Your task to perform on an android device: Add "acer nitro" to the cart on bestbuy, then select checkout. Image 0: 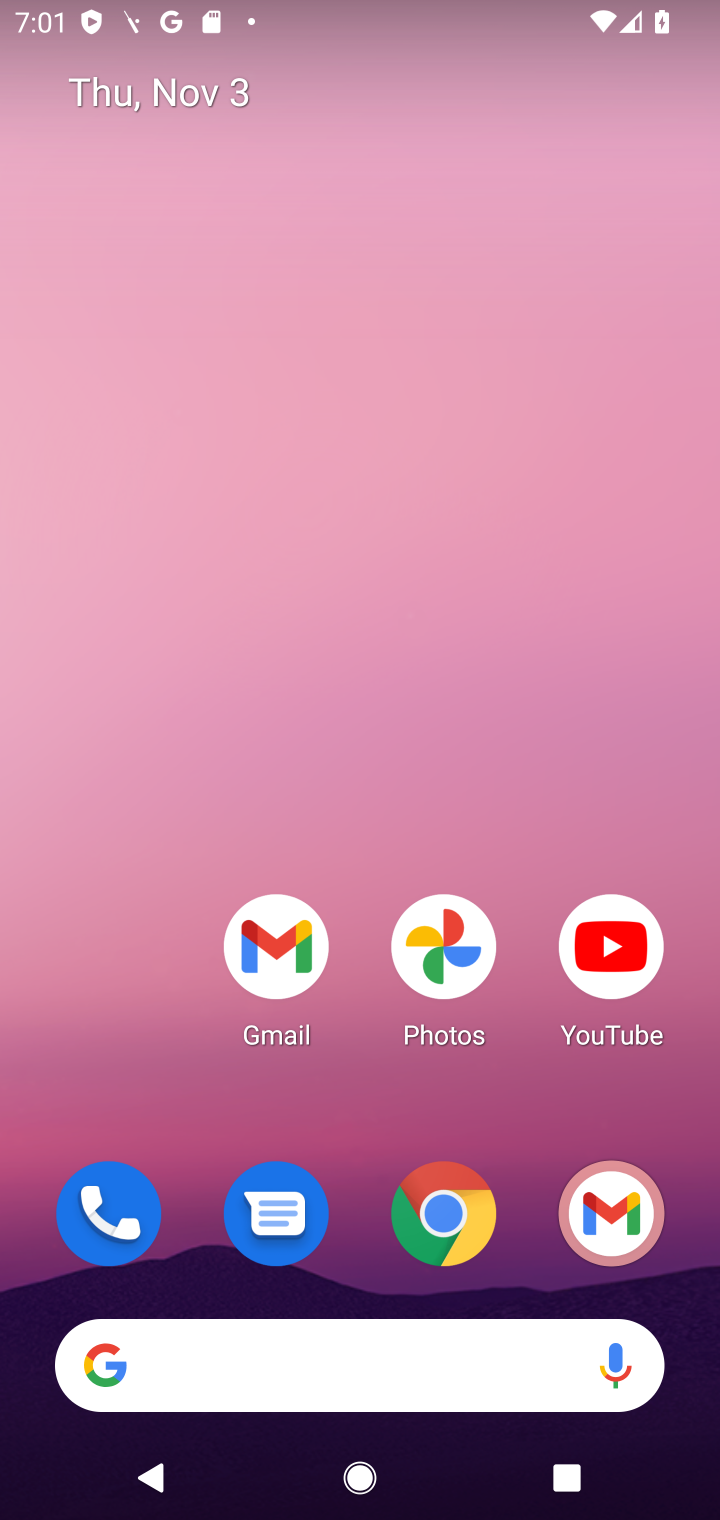
Step 0: click (441, 1226)
Your task to perform on an android device: Add "acer nitro" to the cart on bestbuy, then select checkout. Image 1: 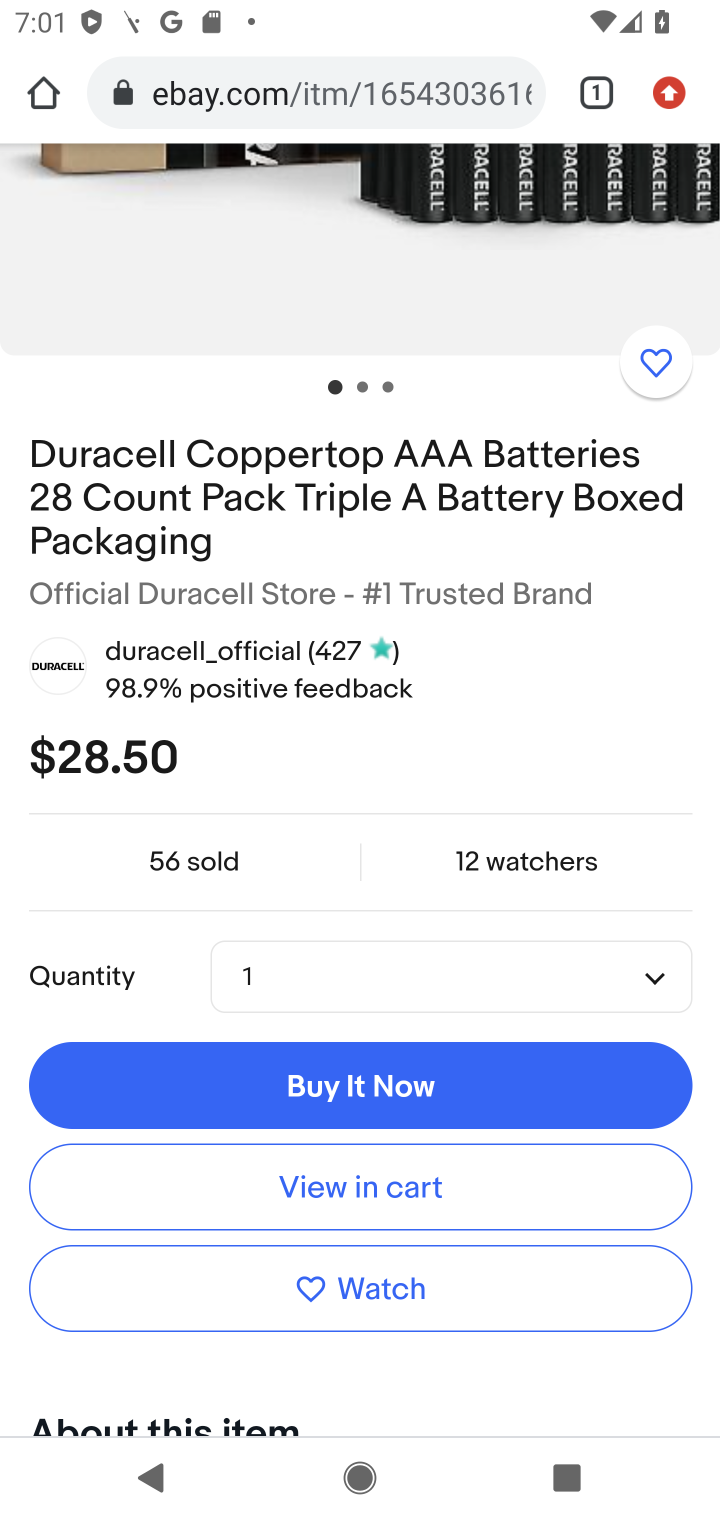
Step 1: click (300, 93)
Your task to perform on an android device: Add "acer nitro" to the cart on bestbuy, then select checkout. Image 2: 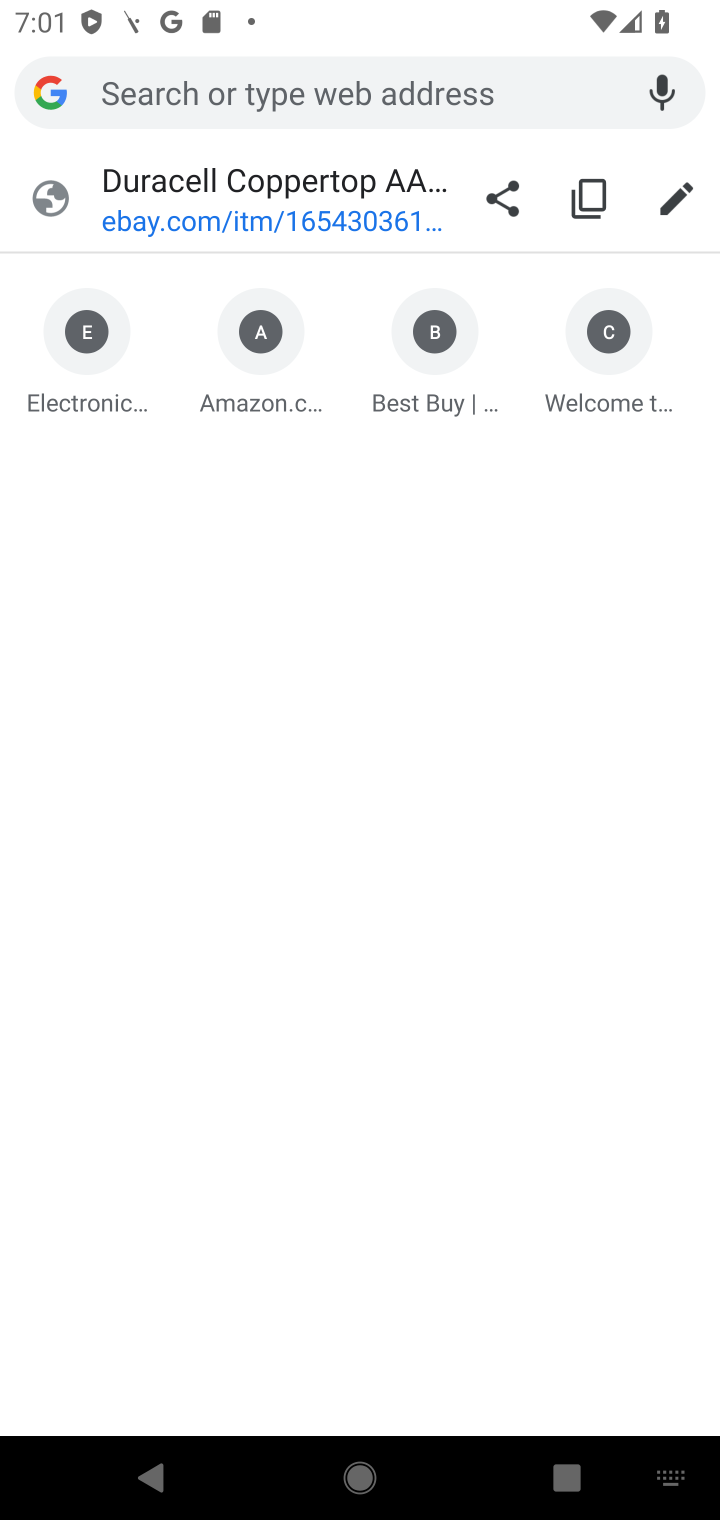
Step 2: type "bestbuy.com"
Your task to perform on an android device: Add "acer nitro" to the cart on bestbuy, then select checkout. Image 3: 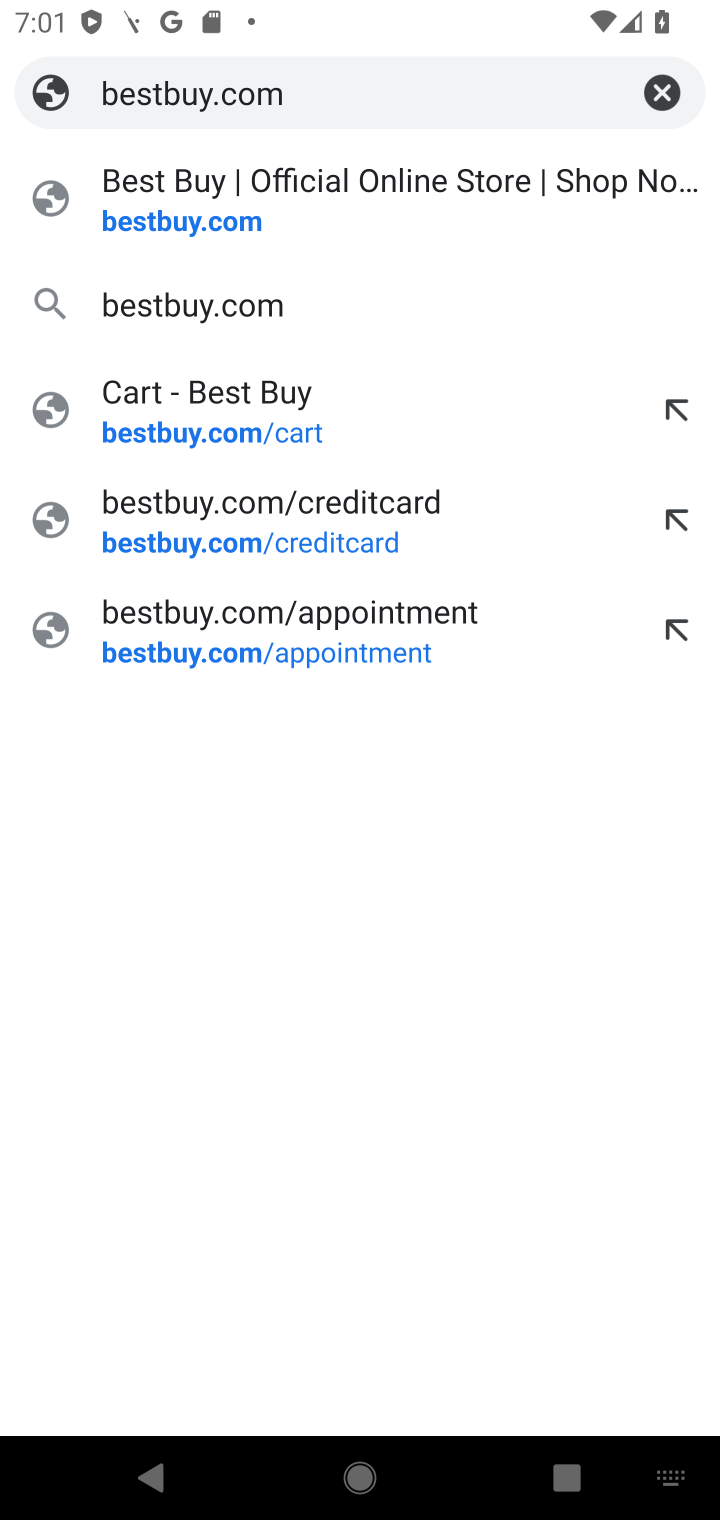
Step 3: click (159, 230)
Your task to perform on an android device: Add "acer nitro" to the cart on bestbuy, then select checkout. Image 4: 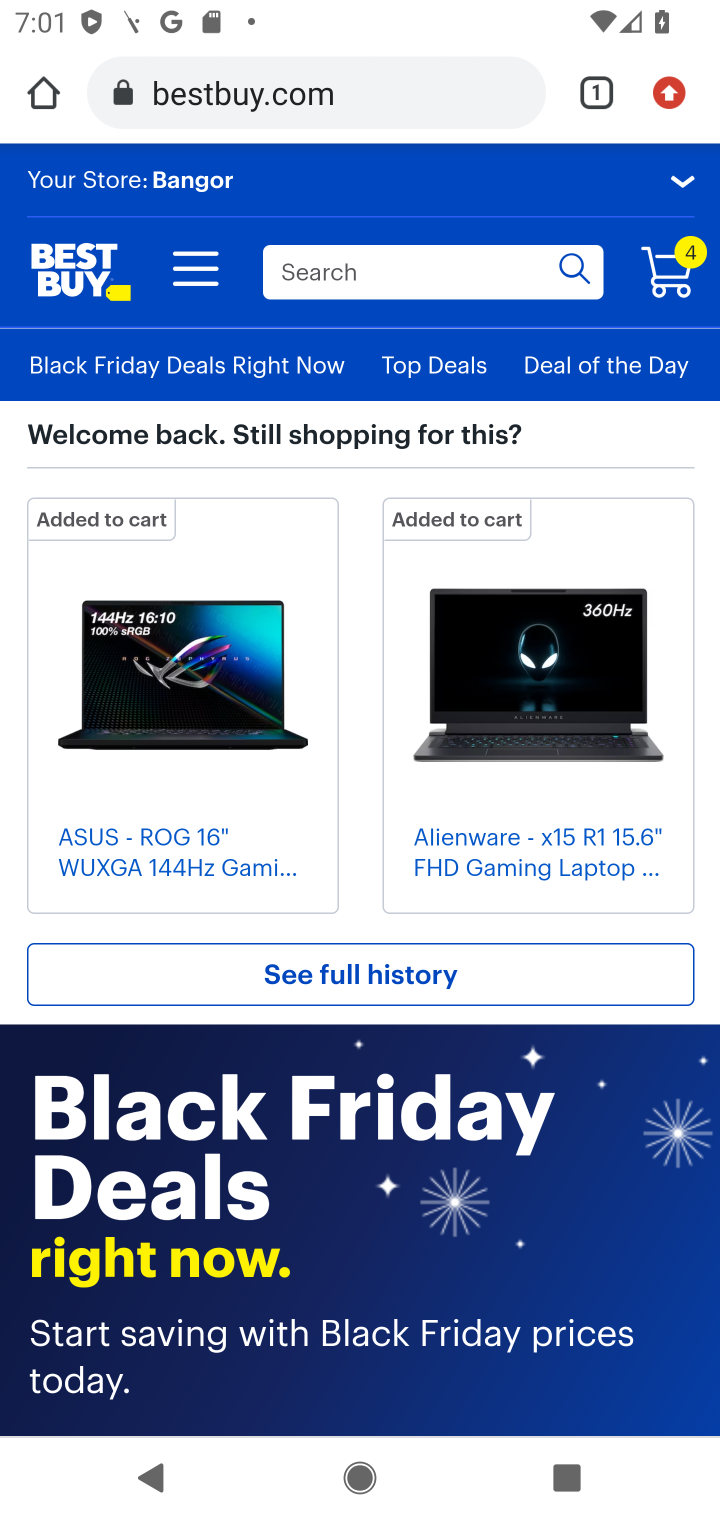
Step 4: click (356, 279)
Your task to perform on an android device: Add "acer nitro" to the cart on bestbuy, then select checkout. Image 5: 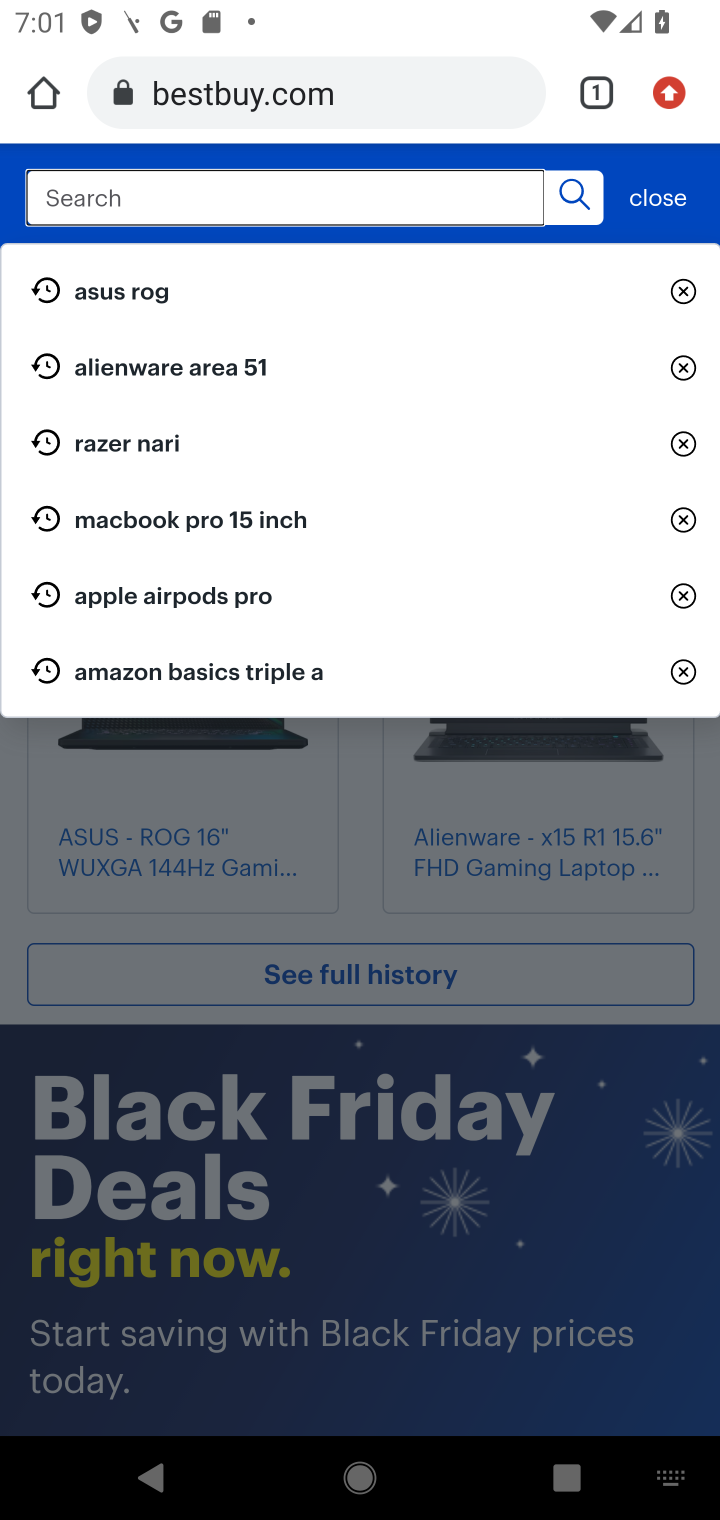
Step 5: type "acer nitro"
Your task to perform on an android device: Add "acer nitro" to the cart on bestbuy, then select checkout. Image 6: 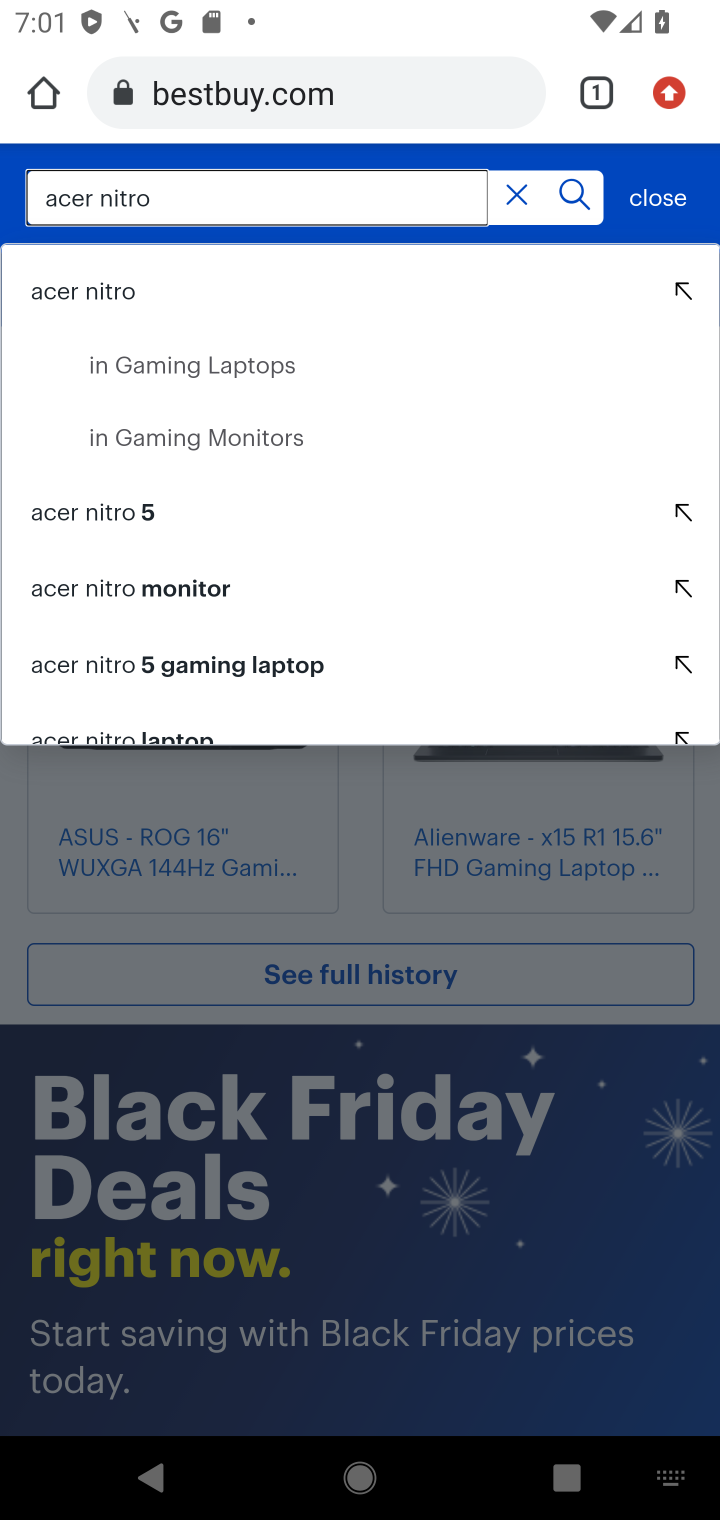
Step 6: click (57, 294)
Your task to perform on an android device: Add "acer nitro" to the cart on bestbuy, then select checkout. Image 7: 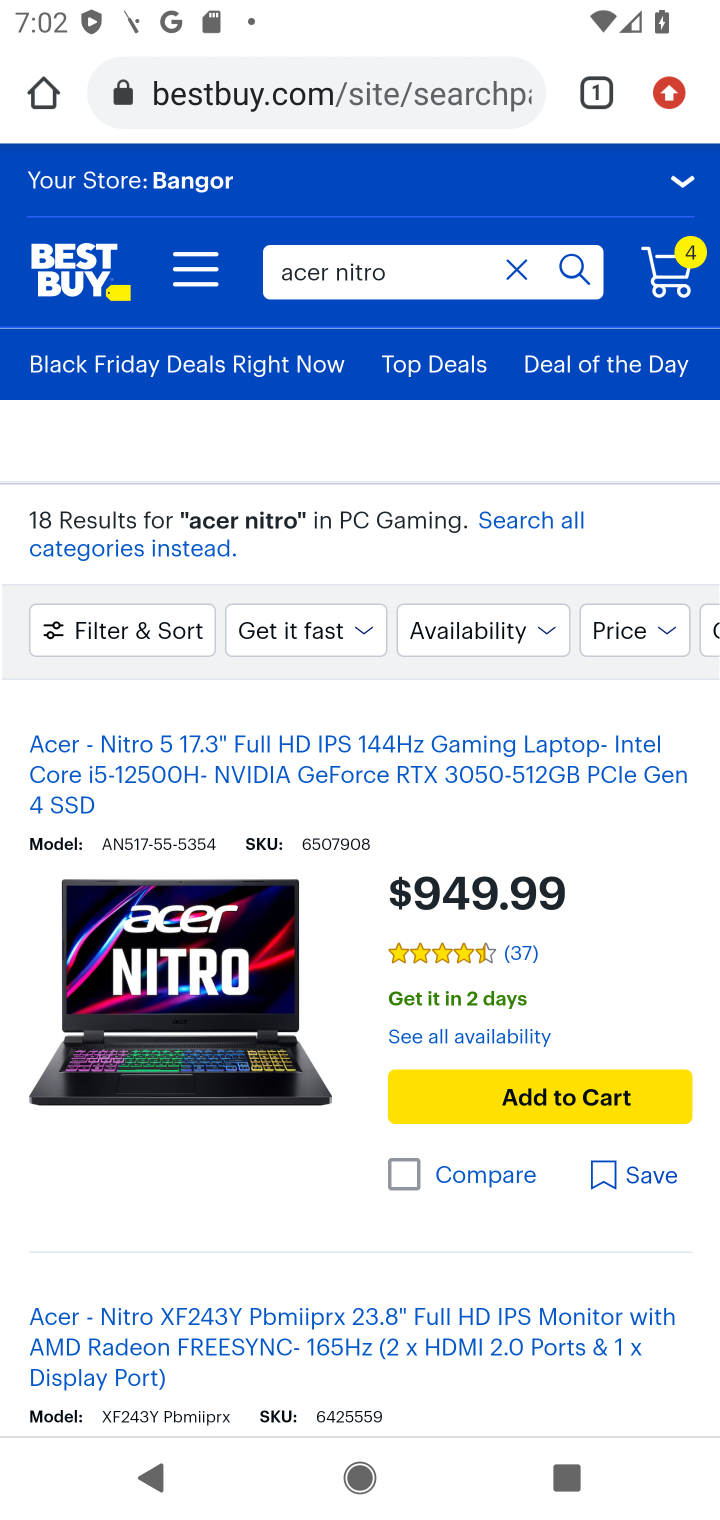
Step 7: click (229, 805)
Your task to perform on an android device: Add "acer nitro" to the cart on bestbuy, then select checkout. Image 8: 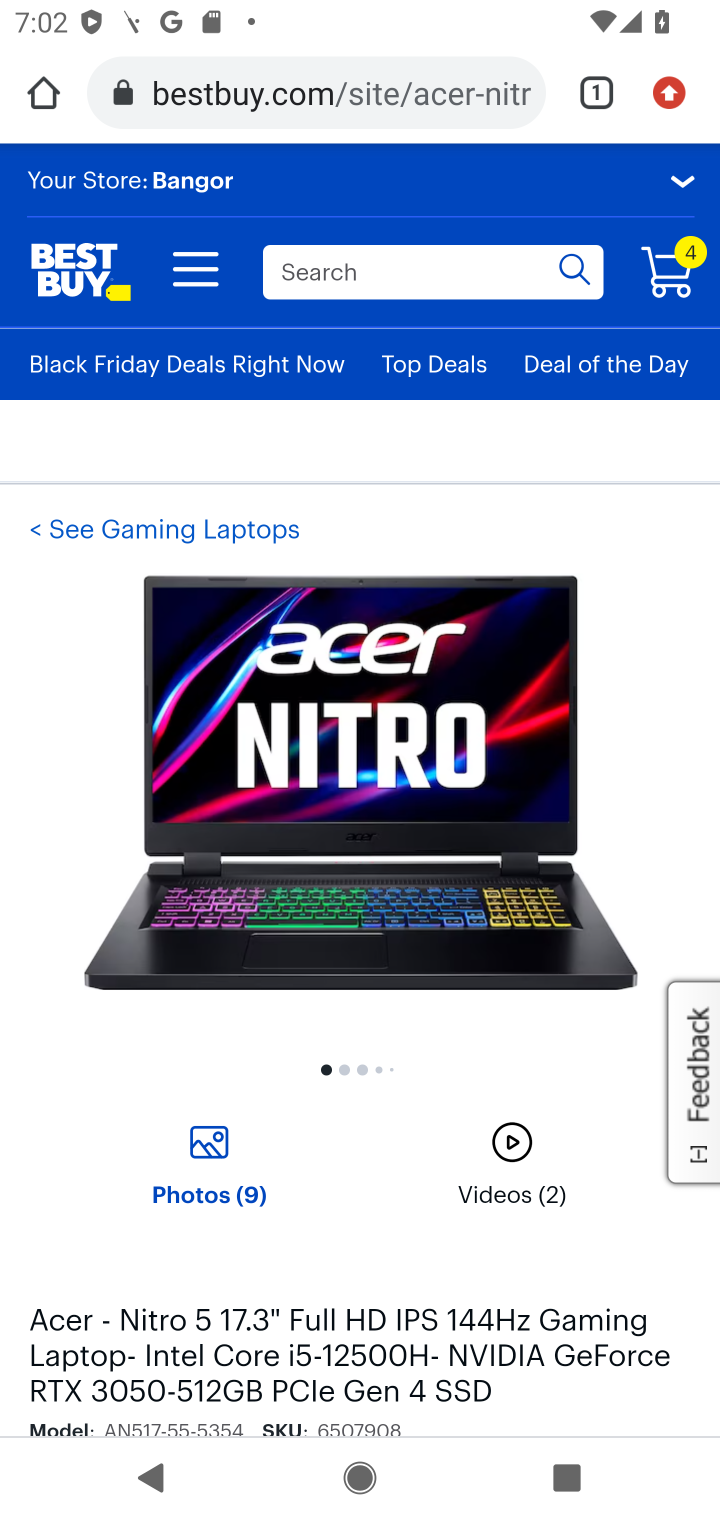
Step 8: drag from (269, 902) to (265, 466)
Your task to perform on an android device: Add "acer nitro" to the cart on bestbuy, then select checkout. Image 9: 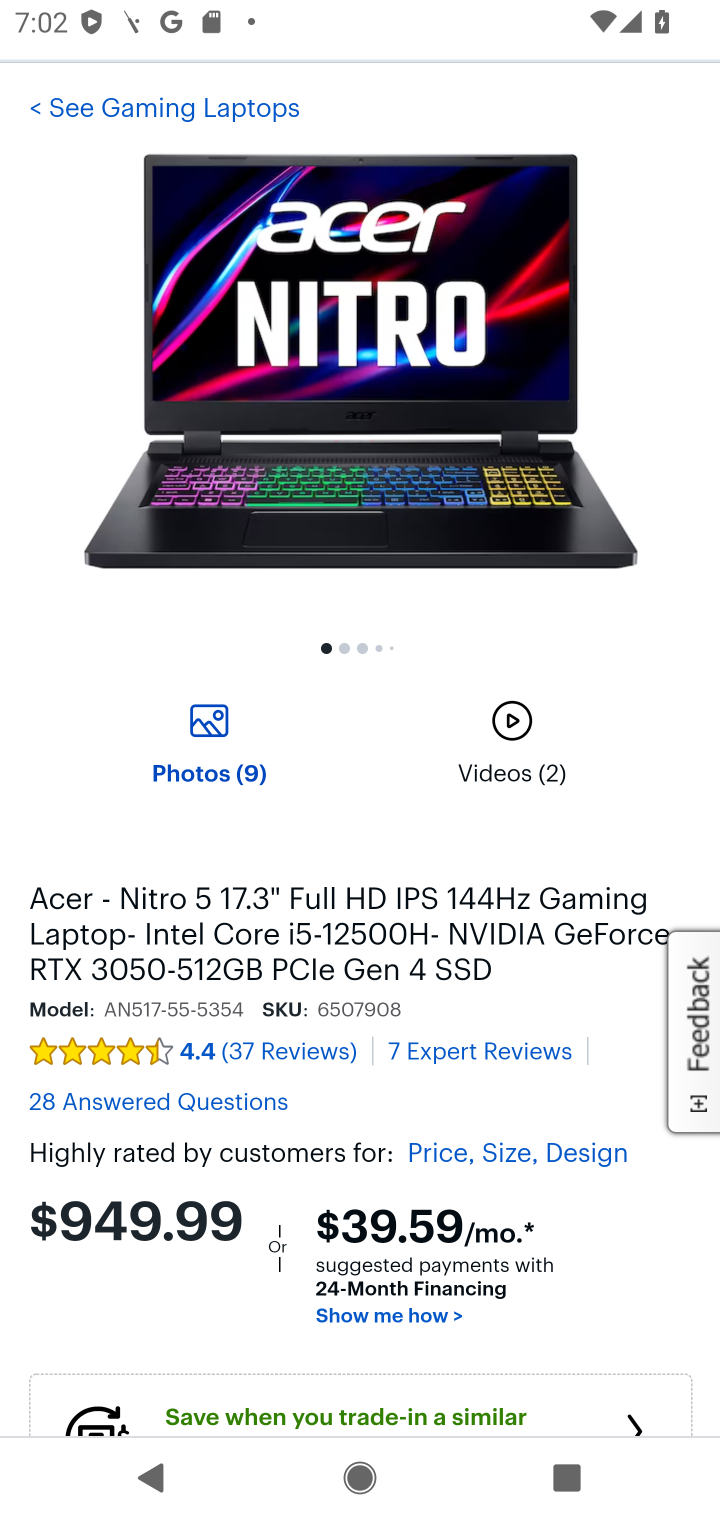
Step 9: drag from (292, 1021) to (287, 486)
Your task to perform on an android device: Add "acer nitro" to the cart on bestbuy, then select checkout. Image 10: 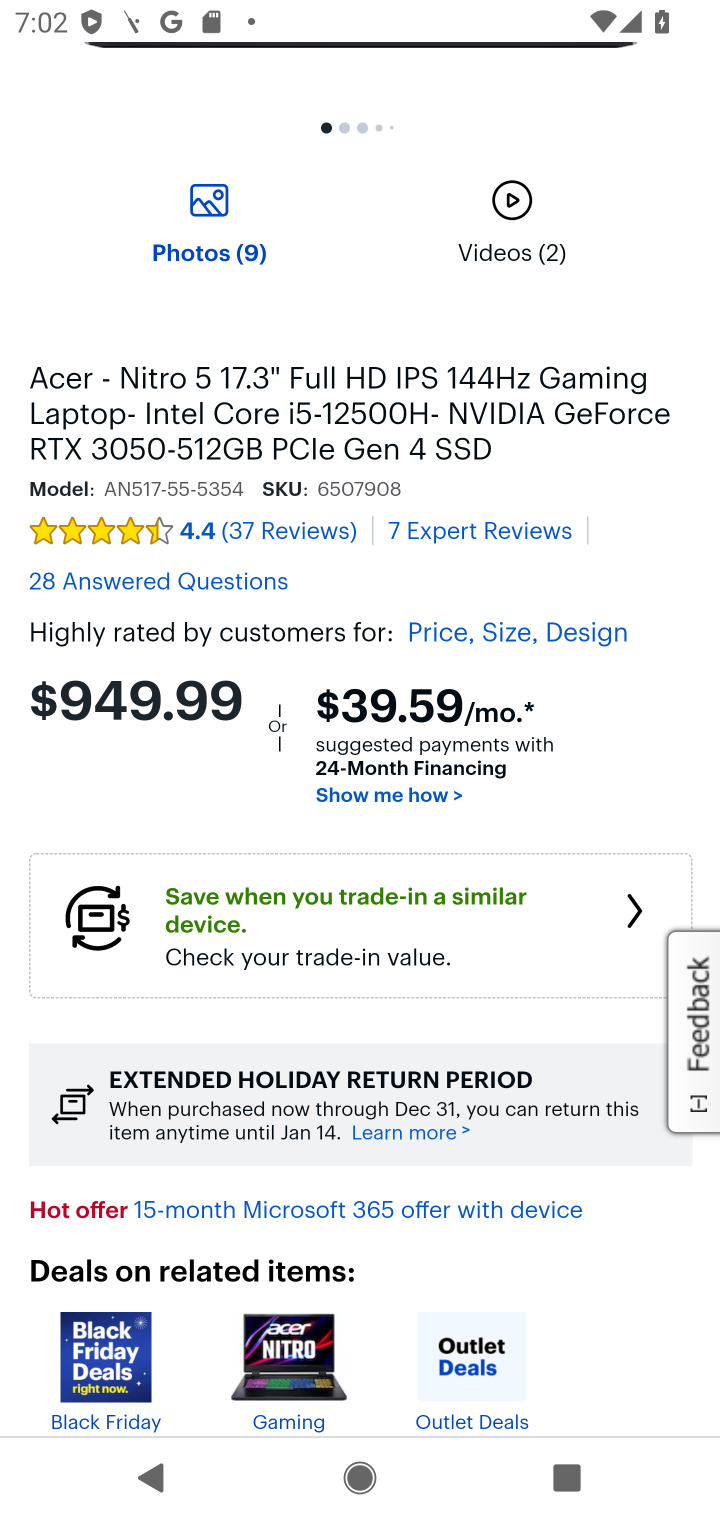
Step 10: drag from (287, 1041) to (307, 512)
Your task to perform on an android device: Add "acer nitro" to the cart on bestbuy, then select checkout. Image 11: 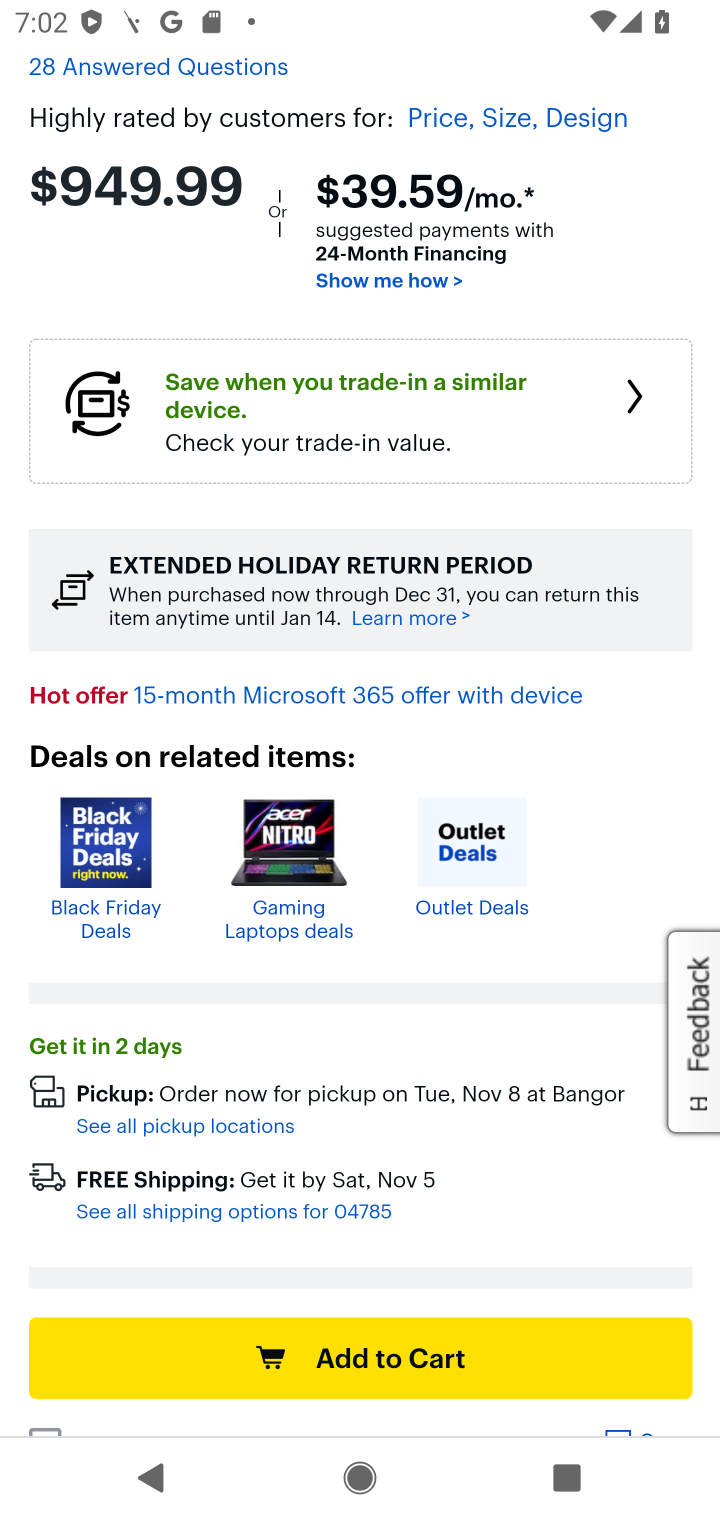
Step 11: click (328, 1366)
Your task to perform on an android device: Add "acer nitro" to the cart on bestbuy, then select checkout. Image 12: 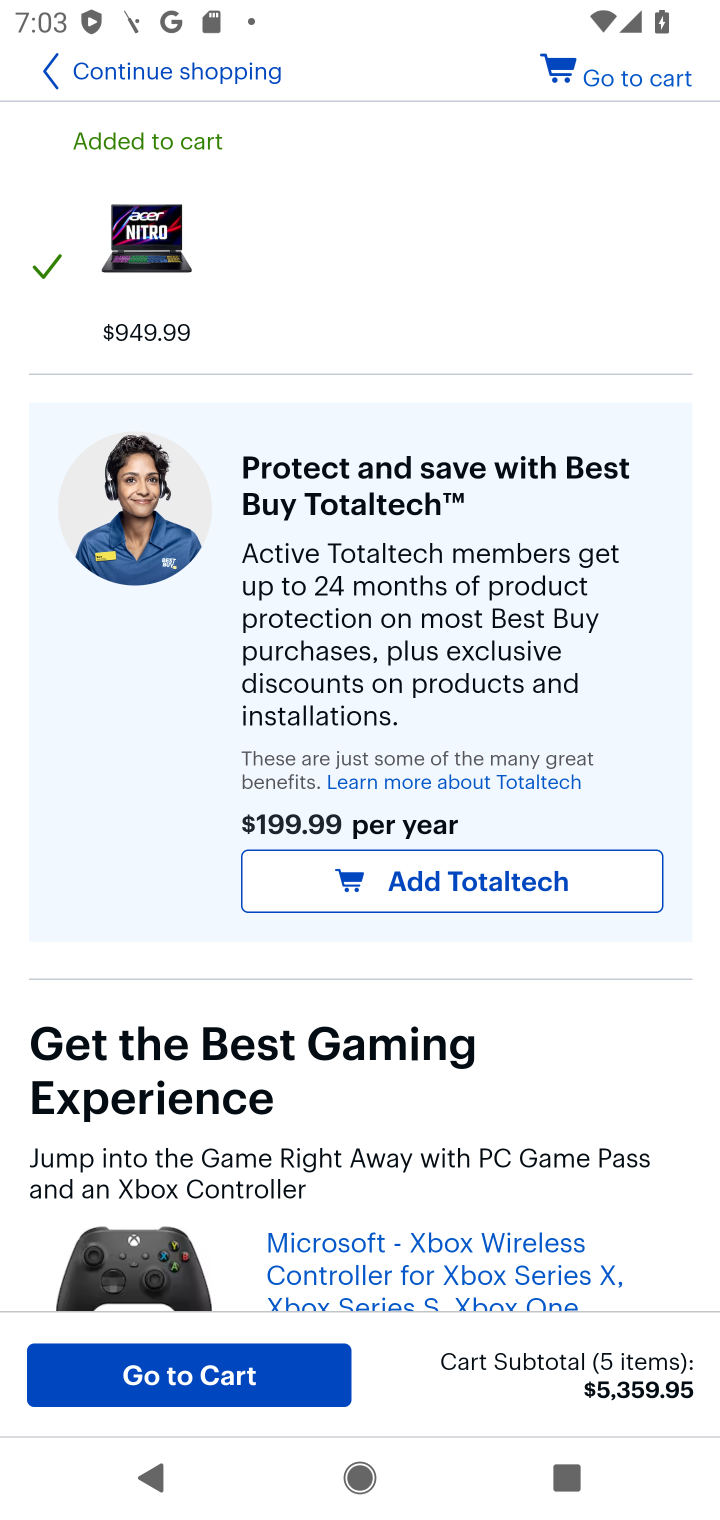
Step 12: click (645, 75)
Your task to perform on an android device: Add "acer nitro" to the cart on bestbuy, then select checkout. Image 13: 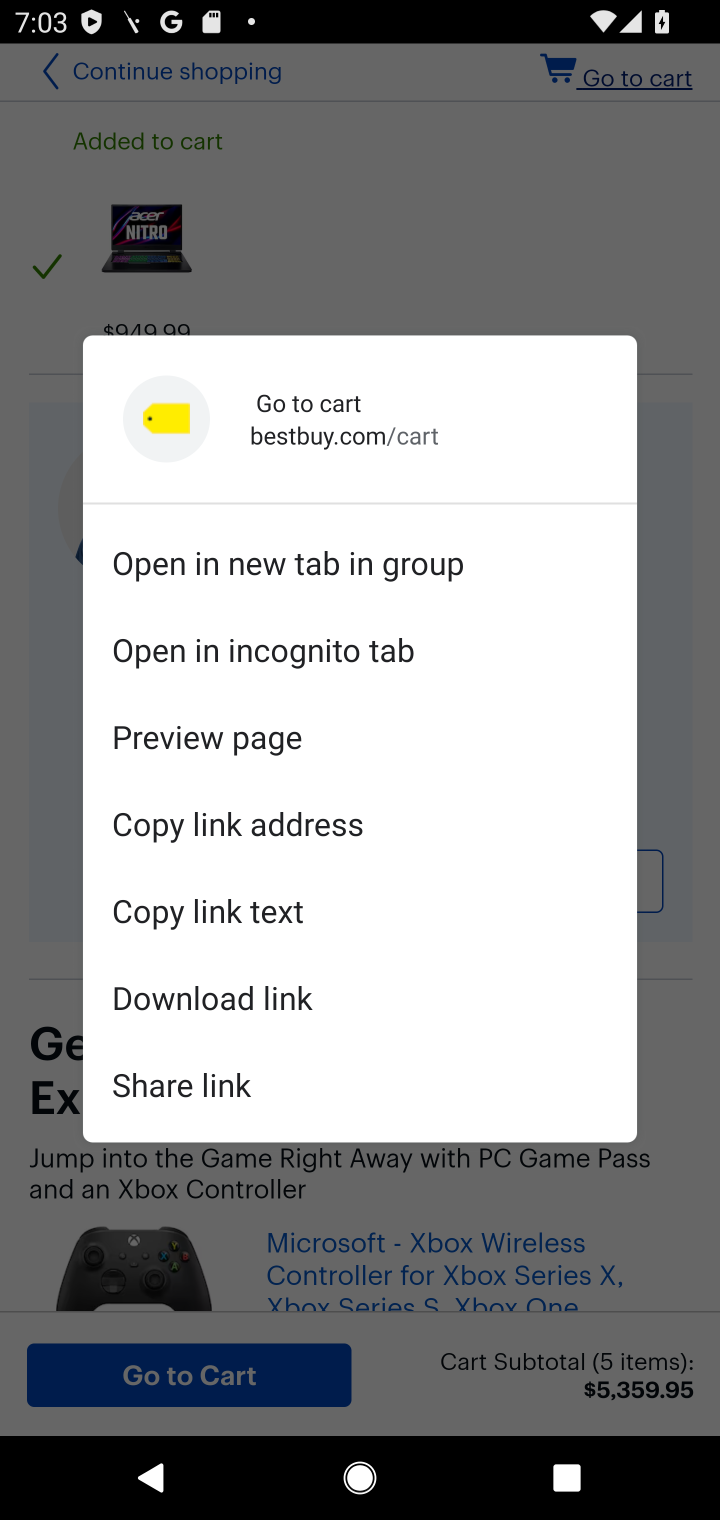
Step 13: click (608, 83)
Your task to perform on an android device: Add "acer nitro" to the cart on bestbuy, then select checkout. Image 14: 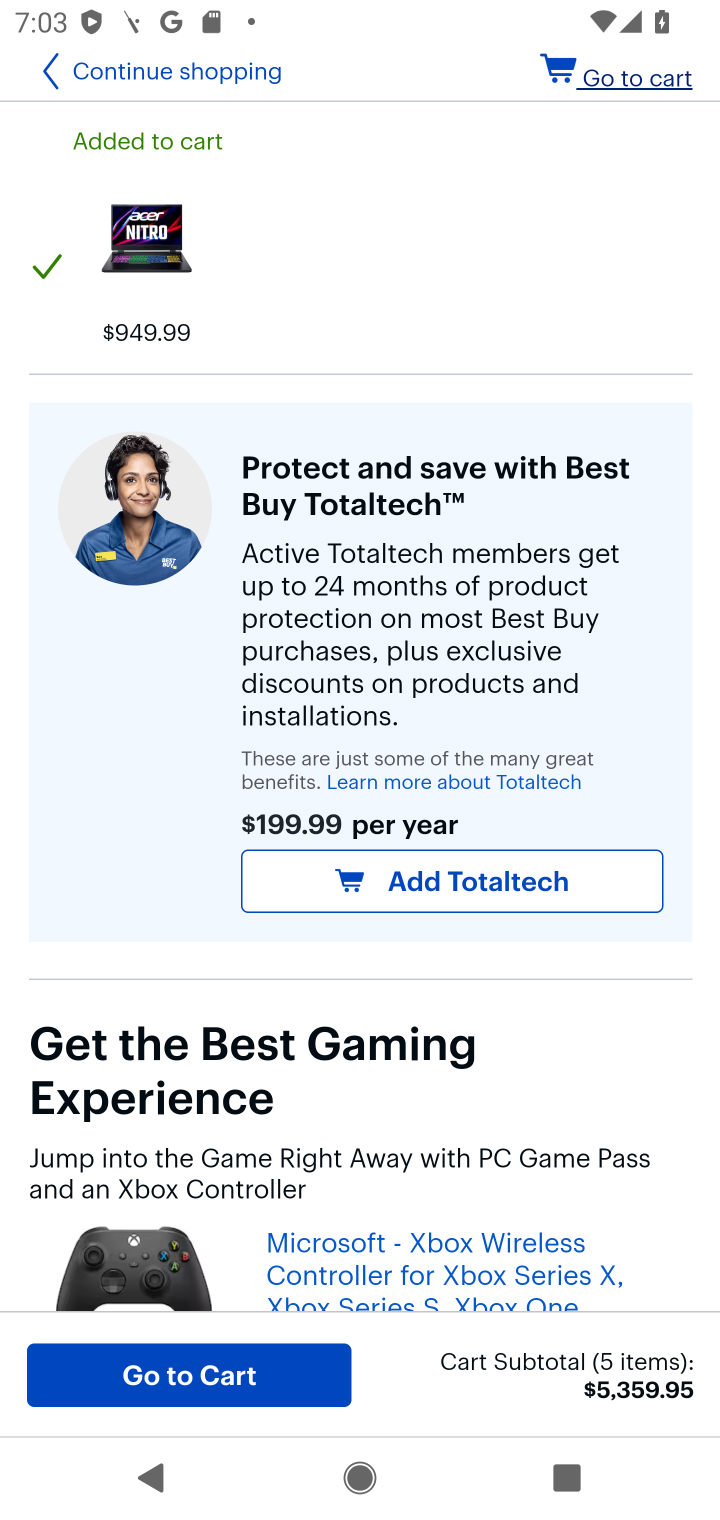
Step 14: click (634, 80)
Your task to perform on an android device: Add "acer nitro" to the cart on bestbuy, then select checkout. Image 15: 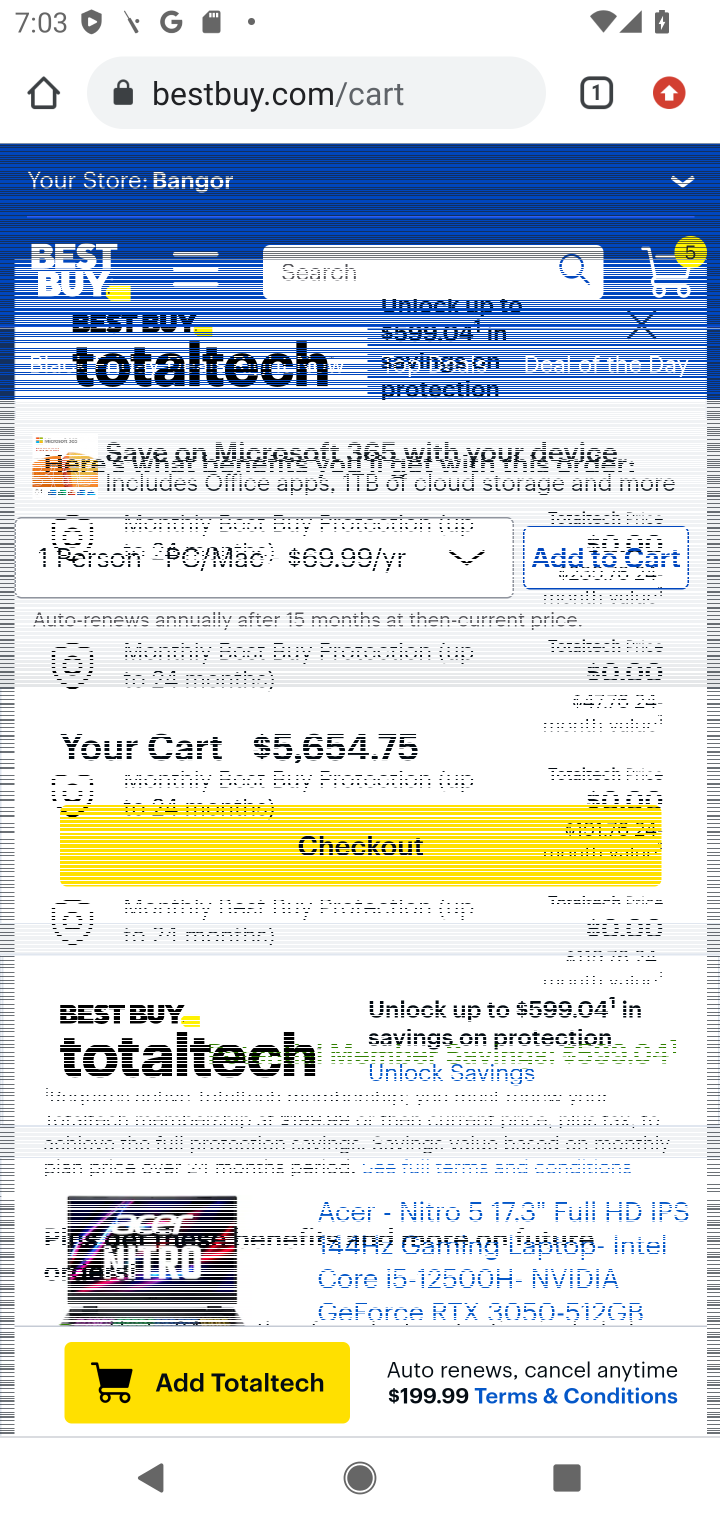
Step 15: click (649, 322)
Your task to perform on an android device: Add "acer nitro" to the cart on bestbuy, then select checkout. Image 16: 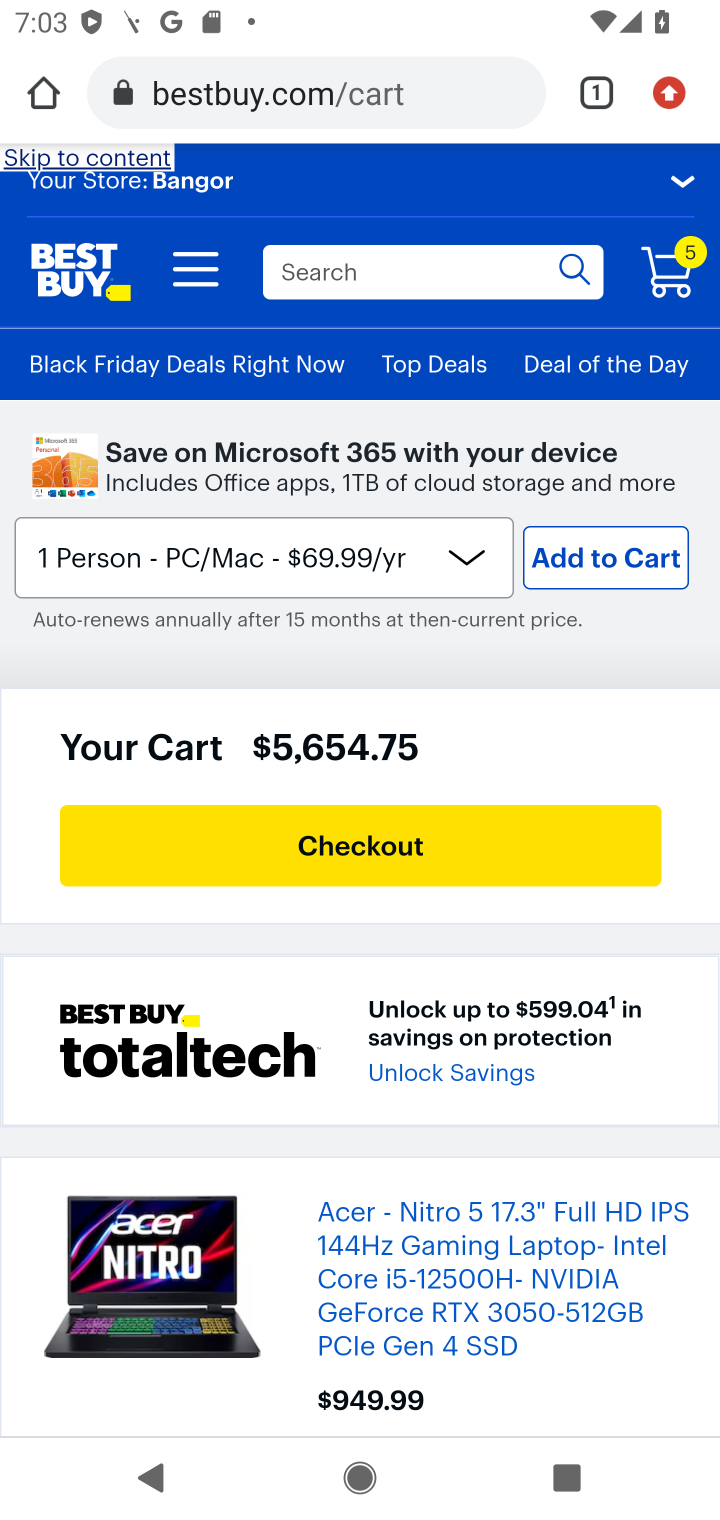
Step 16: click (387, 833)
Your task to perform on an android device: Add "acer nitro" to the cart on bestbuy, then select checkout. Image 17: 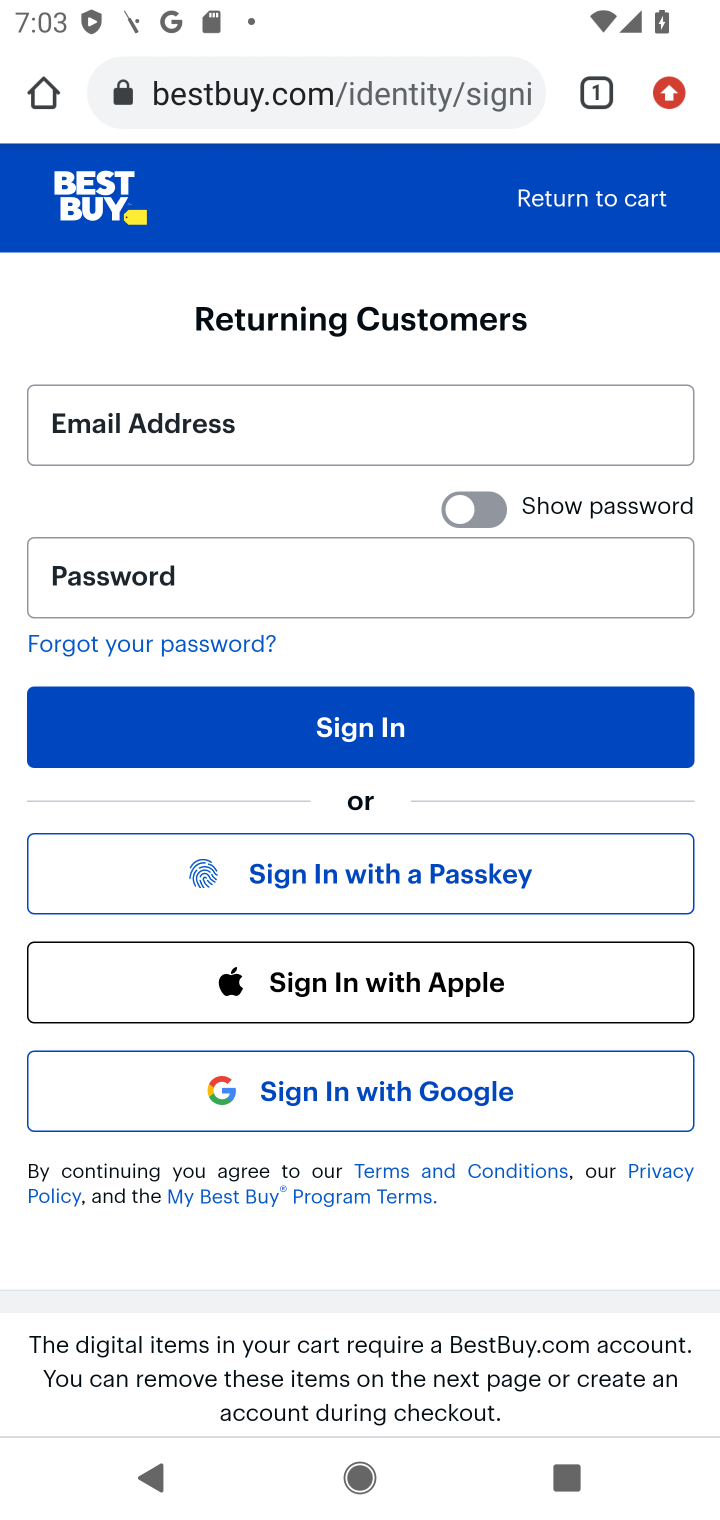
Step 17: task complete